Your task to perform on an android device: see creations saved in the google photos Image 0: 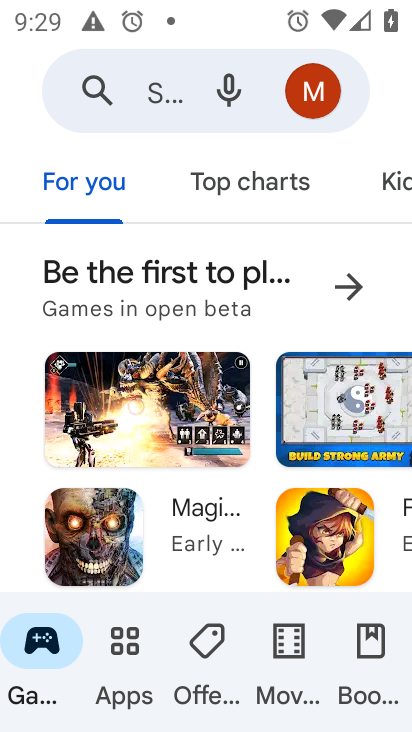
Step 0: press home button
Your task to perform on an android device: see creations saved in the google photos Image 1: 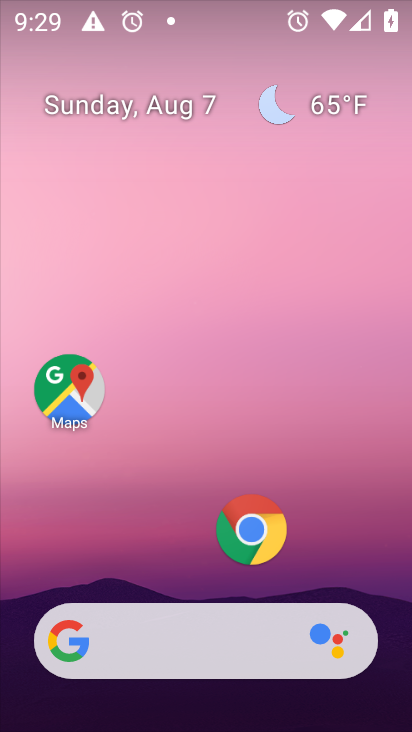
Step 1: drag from (172, 540) to (194, 78)
Your task to perform on an android device: see creations saved in the google photos Image 2: 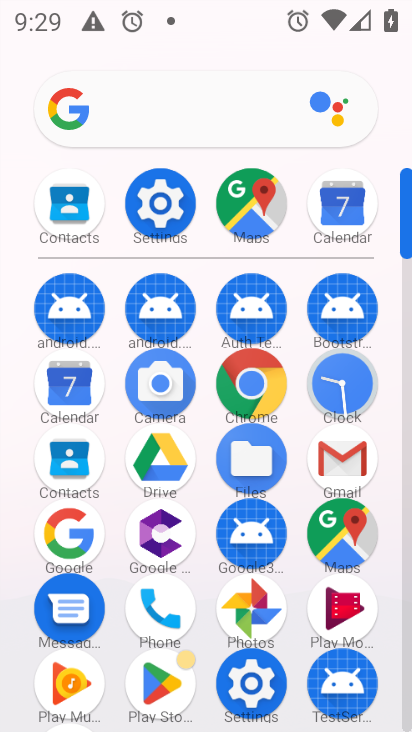
Step 2: click (232, 595)
Your task to perform on an android device: see creations saved in the google photos Image 3: 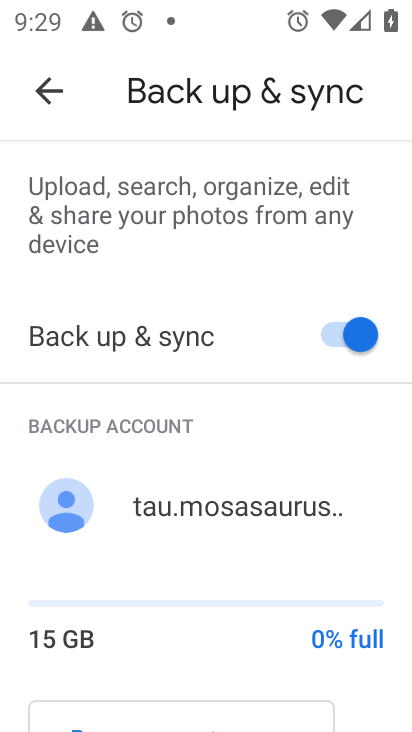
Step 3: click (49, 82)
Your task to perform on an android device: see creations saved in the google photos Image 4: 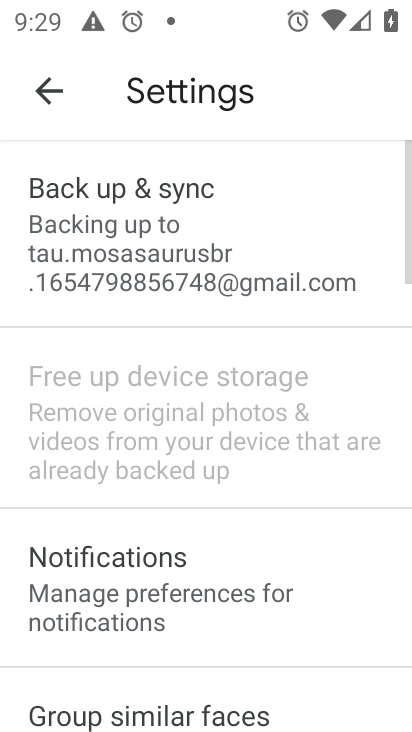
Step 4: click (37, 91)
Your task to perform on an android device: see creations saved in the google photos Image 5: 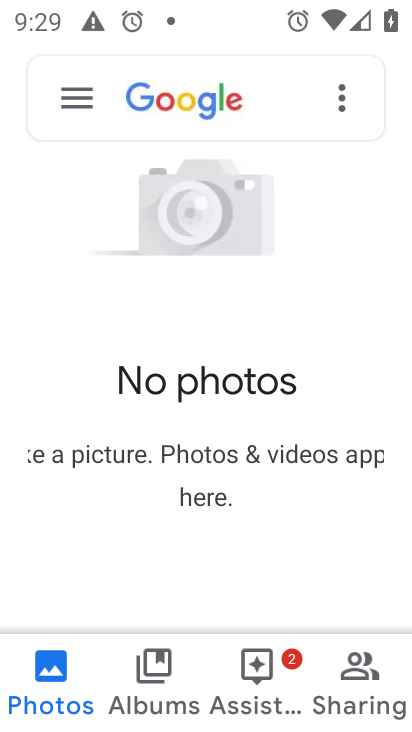
Step 5: click (207, 96)
Your task to perform on an android device: see creations saved in the google photos Image 6: 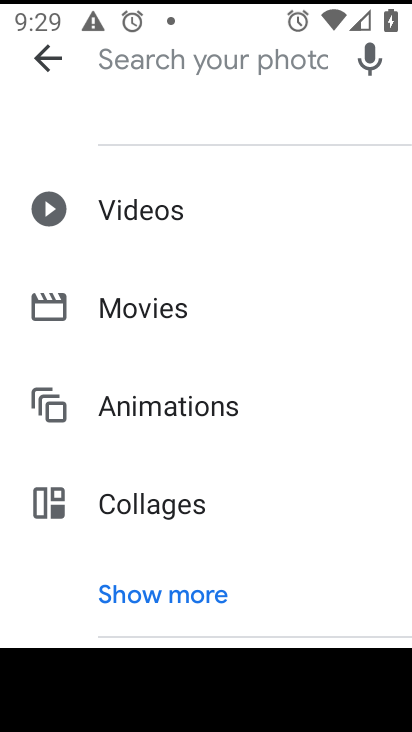
Step 6: drag from (184, 557) to (233, 166)
Your task to perform on an android device: see creations saved in the google photos Image 7: 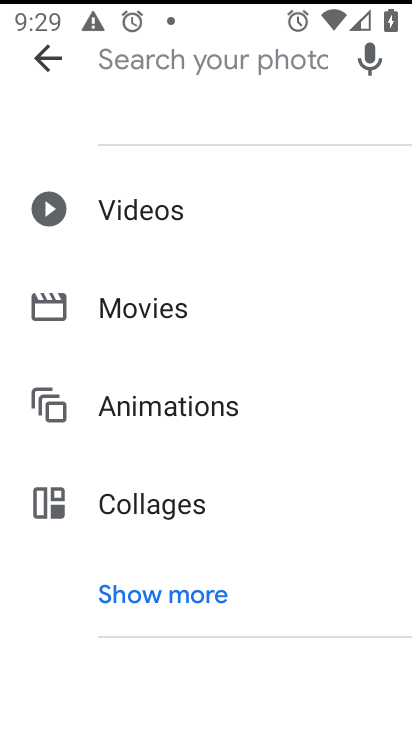
Step 7: click (209, 86)
Your task to perform on an android device: see creations saved in the google photos Image 8: 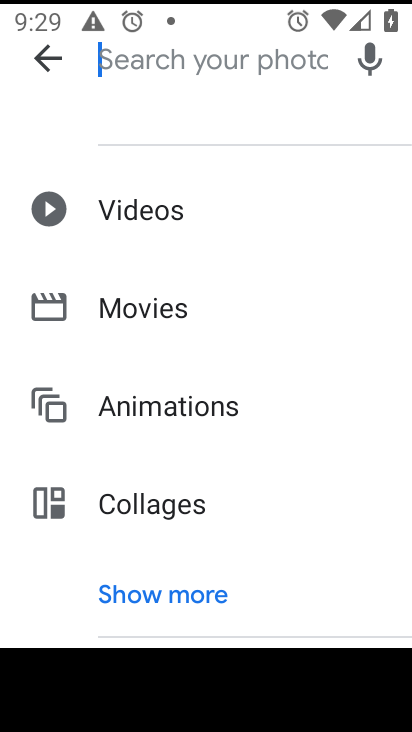
Step 8: type "creations"
Your task to perform on an android device: see creations saved in the google photos Image 9: 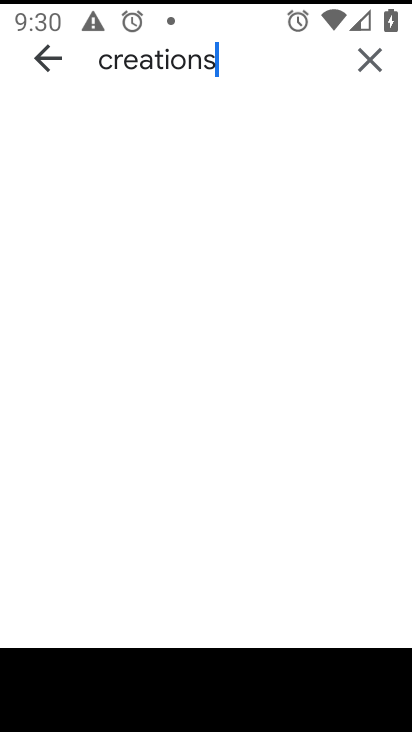
Step 9: task complete